Your task to perform on an android device: change your default location settings in chrome Image 0: 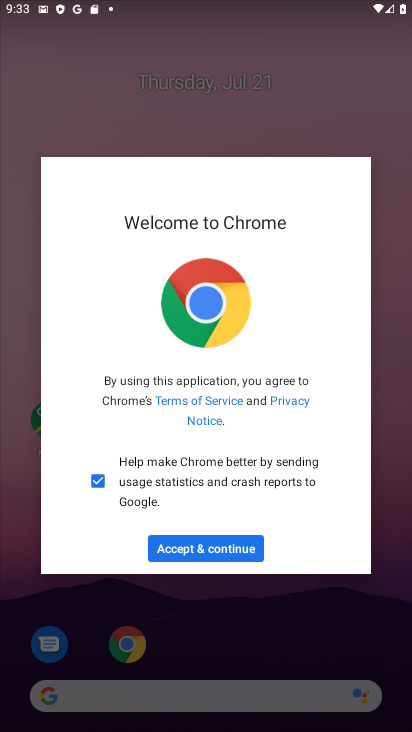
Step 0: press home button
Your task to perform on an android device: change your default location settings in chrome Image 1: 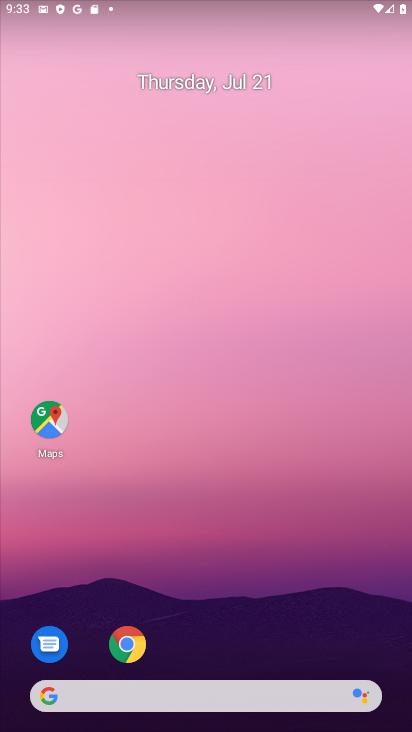
Step 1: click (124, 641)
Your task to perform on an android device: change your default location settings in chrome Image 2: 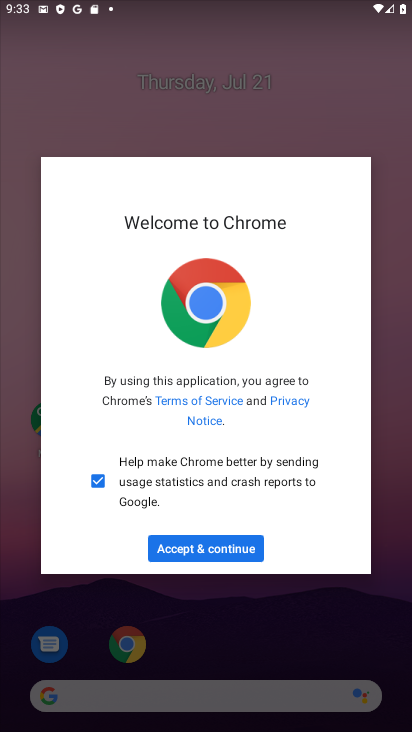
Step 2: click (199, 544)
Your task to perform on an android device: change your default location settings in chrome Image 3: 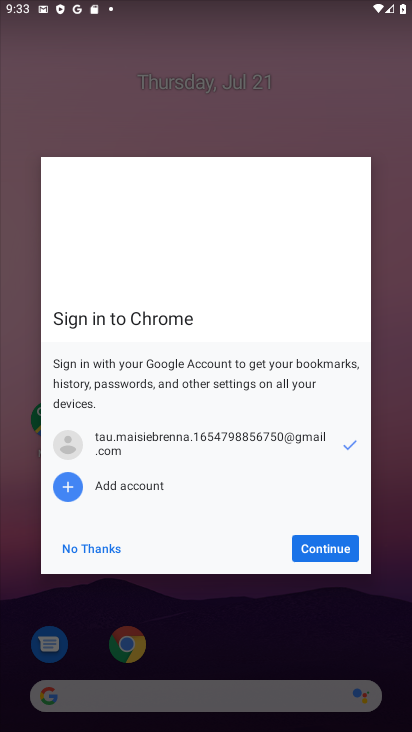
Step 3: click (323, 546)
Your task to perform on an android device: change your default location settings in chrome Image 4: 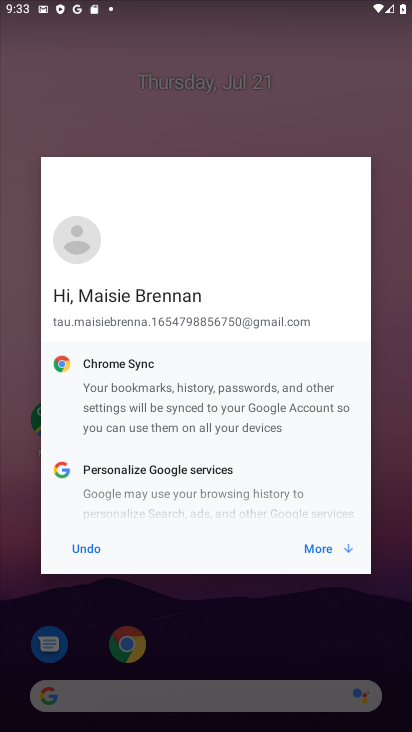
Step 4: click (317, 544)
Your task to perform on an android device: change your default location settings in chrome Image 5: 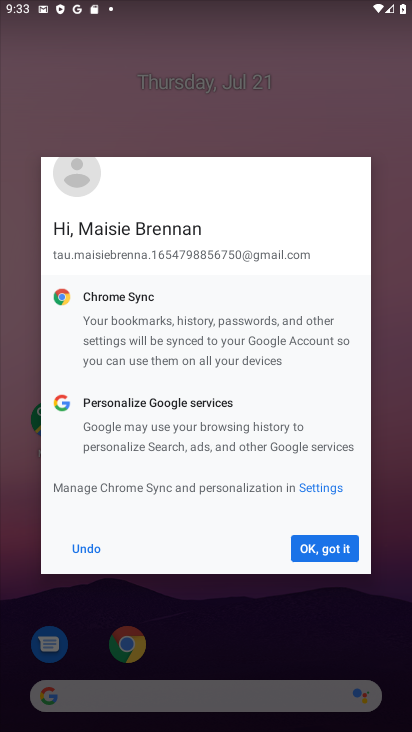
Step 5: click (321, 544)
Your task to perform on an android device: change your default location settings in chrome Image 6: 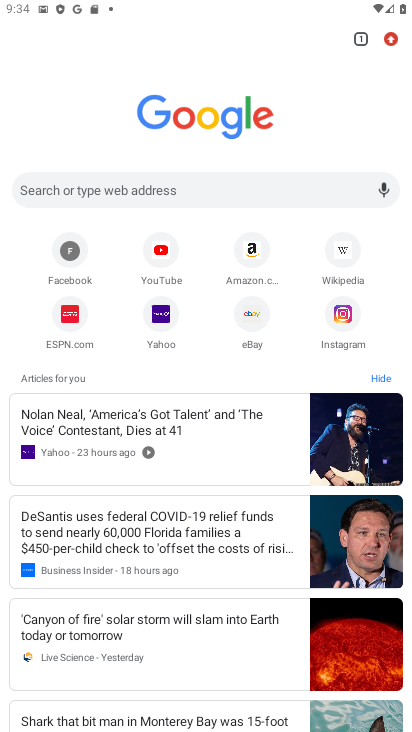
Step 6: click (387, 36)
Your task to perform on an android device: change your default location settings in chrome Image 7: 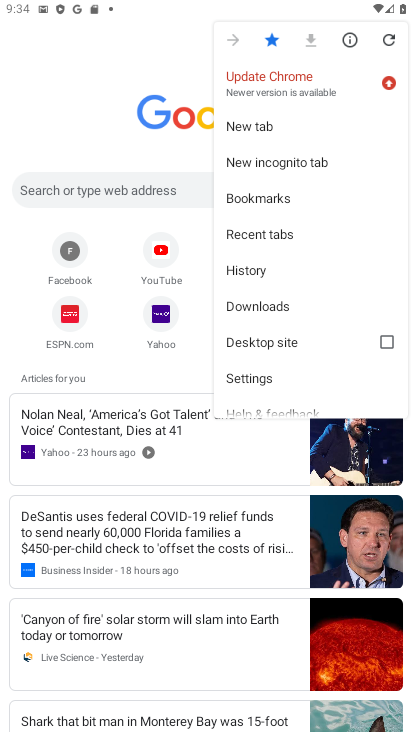
Step 7: click (271, 373)
Your task to perform on an android device: change your default location settings in chrome Image 8: 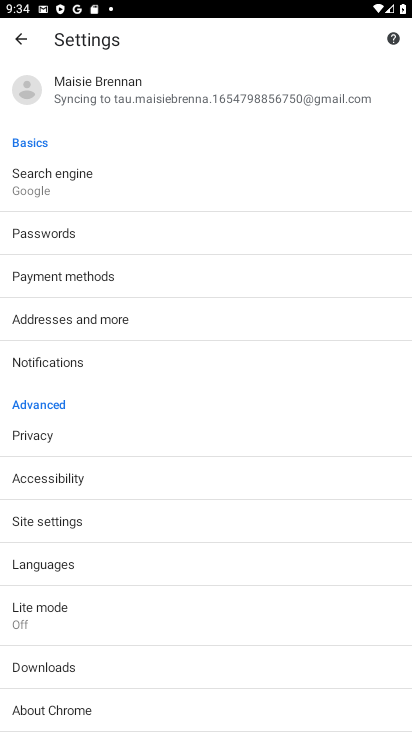
Step 8: click (98, 521)
Your task to perform on an android device: change your default location settings in chrome Image 9: 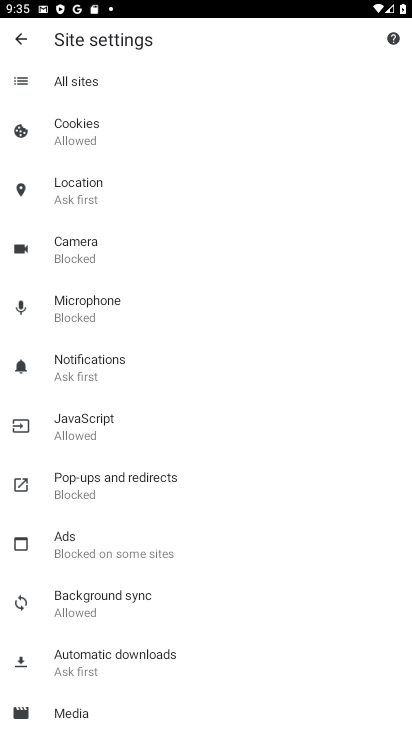
Step 9: click (111, 189)
Your task to perform on an android device: change your default location settings in chrome Image 10: 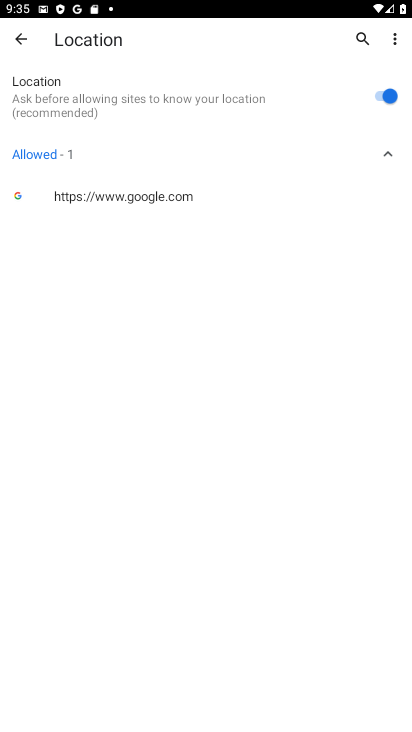
Step 10: click (140, 192)
Your task to perform on an android device: change your default location settings in chrome Image 11: 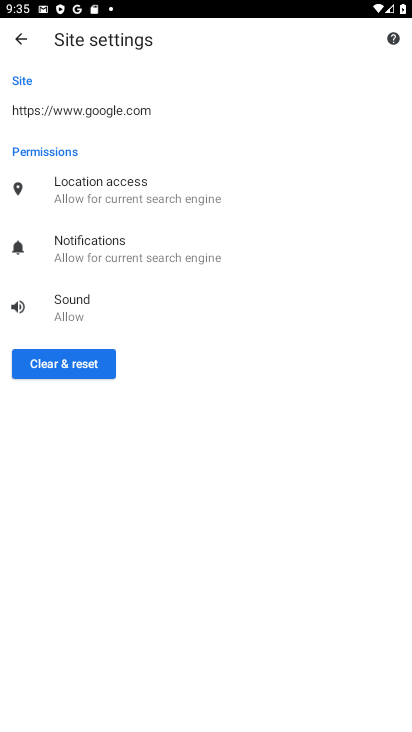
Step 11: task complete